Your task to perform on an android device: Open the calendar app, open the side menu, and click the "Day" option Image 0: 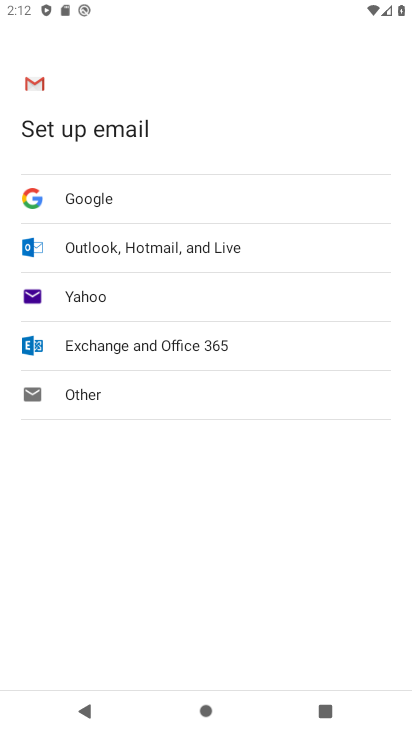
Step 0: press home button
Your task to perform on an android device: Open the calendar app, open the side menu, and click the "Day" option Image 1: 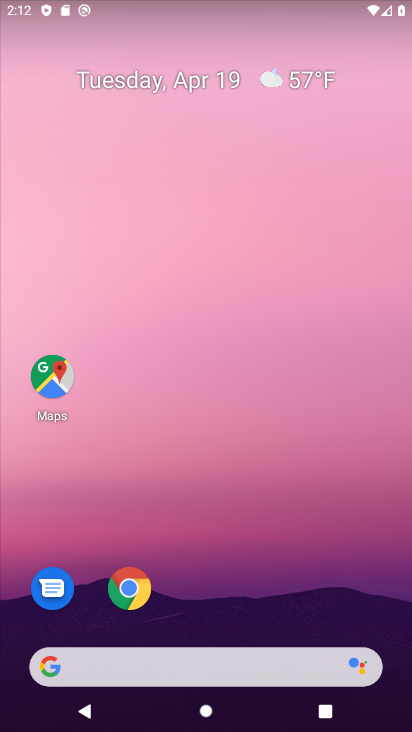
Step 1: drag from (256, 571) to (280, 151)
Your task to perform on an android device: Open the calendar app, open the side menu, and click the "Day" option Image 2: 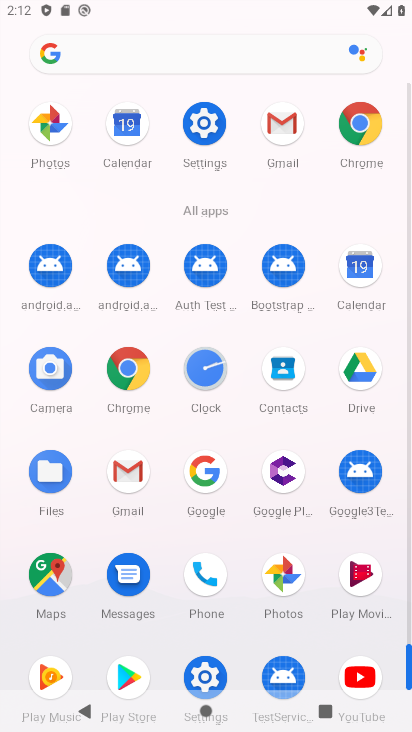
Step 2: click (369, 259)
Your task to perform on an android device: Open the calendar app, open the side menu, and click the "Day" option Image 3: 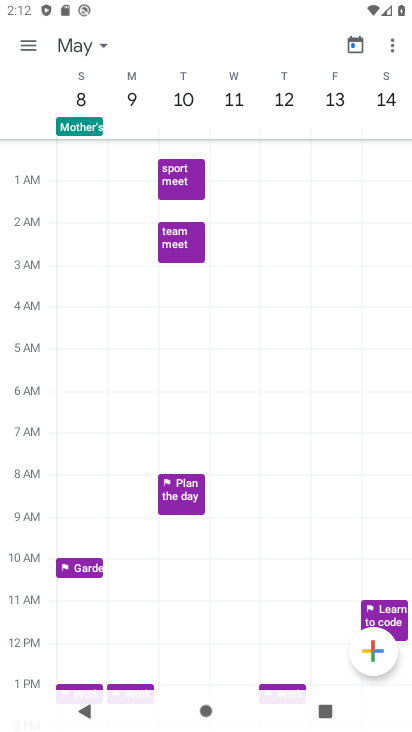
Step 3: click (35, 50)
Your task to perform on an android device: Open the calendar app, open the side menu, and click the "Day" option Image 4: 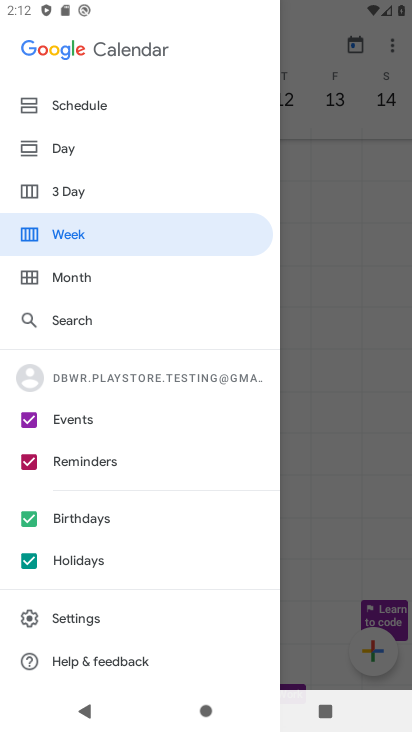
Step 4: click (53, 136)
Your task to perform on an android device: Open the calendar app, open the side menu, and click the "Day" option Image 5: 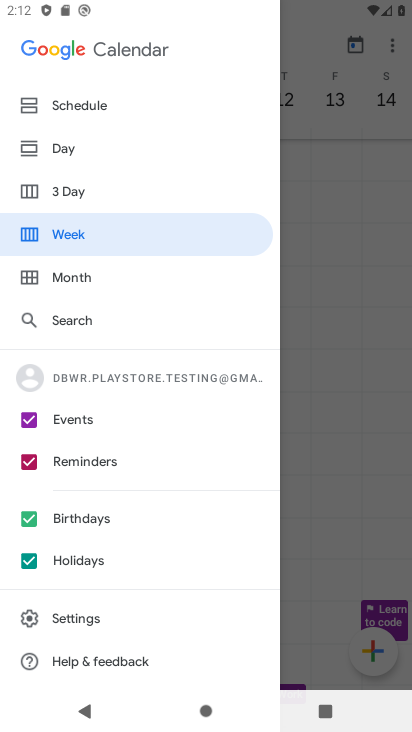
Step 5: click (37, 138)
Your task to perform on an android device: Open the calendar app, open the side menu, and click the "Day" option Image 6: 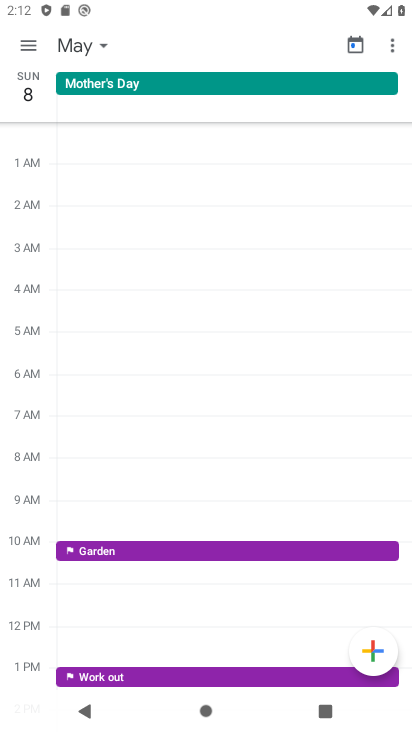
Step 6: task complete